Your task to perform on an android device: Open Google Image 0: 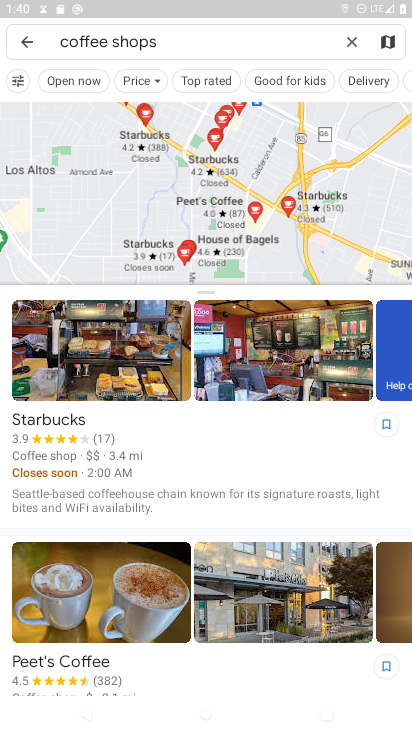
Step 0: press home button
Your task to perform on an android device: Open Google Image 1: 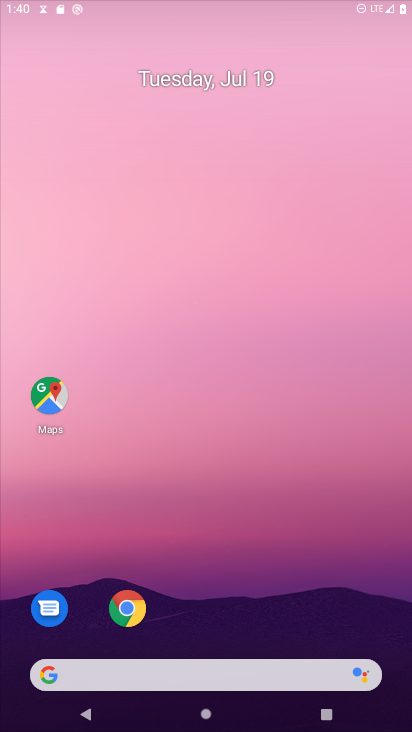
Step 1: drag from (257, 641) to (295, 90)
Your task to perform on an android device: Open Google Image 2: 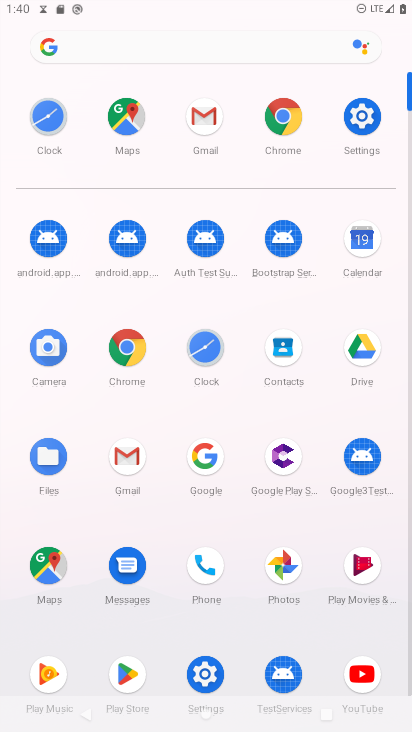
Step 2: click (211, 457)
Your task to perform on an android device: Open Google Image 3: 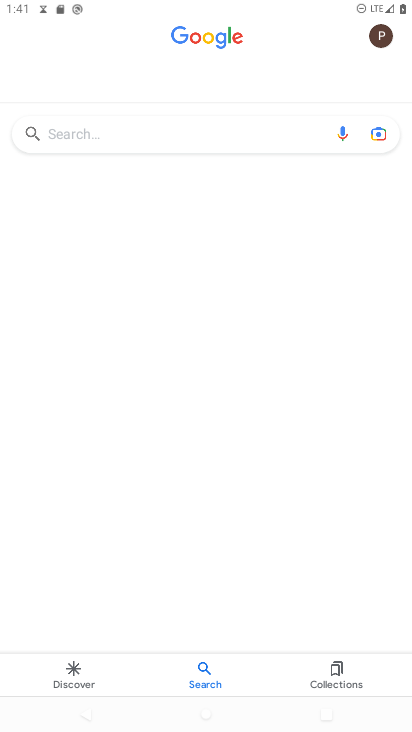
Step 3: task complete